Your task to perform on an android device: open wifi settings Image 0: 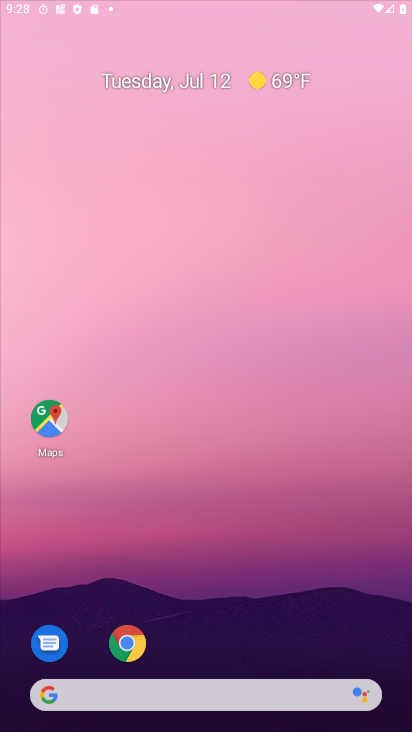
Step 0: press home button
Your task to perform on an android device: open wifi settings Image 1: 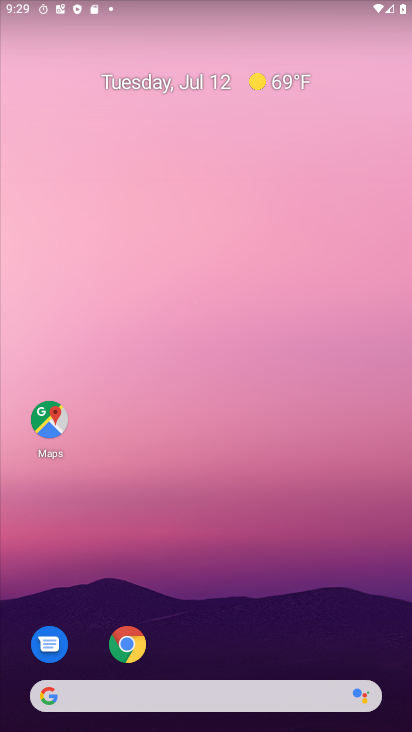
Step 1: drag from (221, 655) to (226, 101)
Your task to perform on an android device: open wifi settings Image 2: 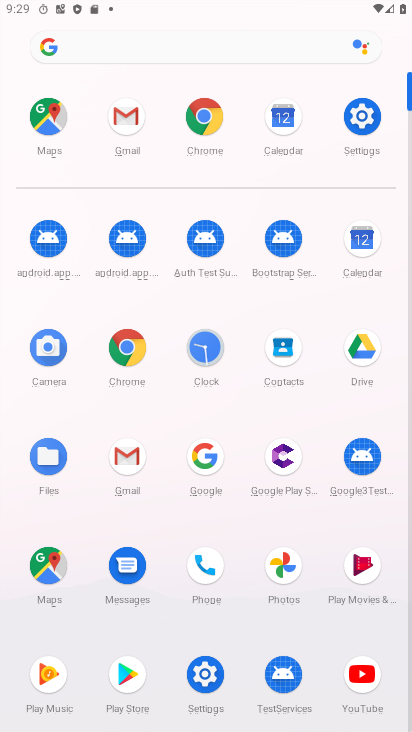
Step 2: click (360, 112)
Your task to perform on an android device: open wifi settings Image 3: 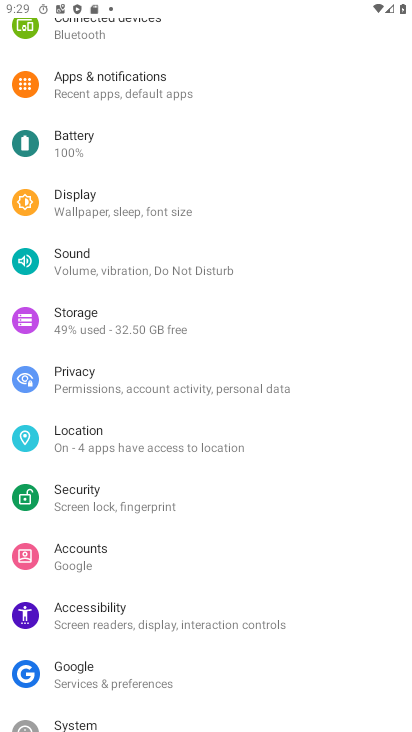
Step 3: drag from (164, 77) to (221, 520)
Your task to perform on an android device: open wifi settings Image 4: 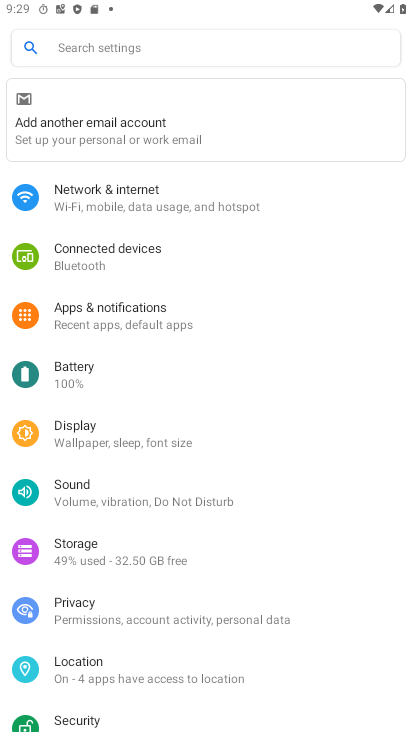
Step 4: click (175, 191)
Your task to perform on an android device: open wifi settings Image 5: 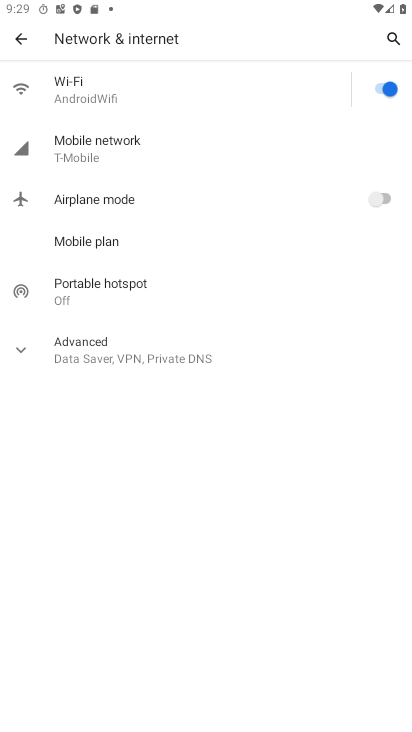
Step 5: click (165, 87)
Your task to perform on an android device: open wifi settings Image 6: 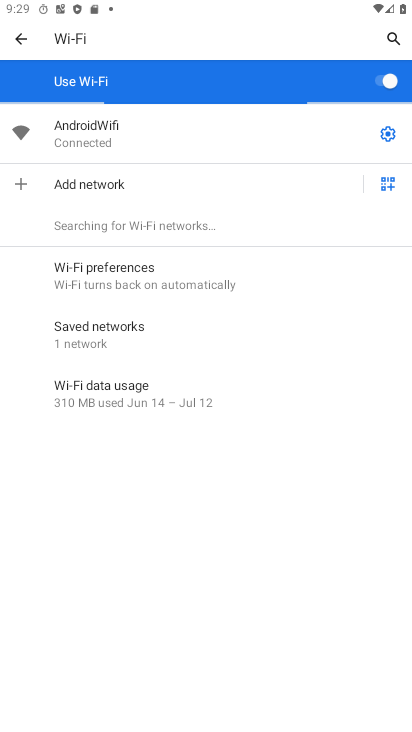
Step 6: task complete